Your task to perform on an android device: turn off airplane mode Image 0: 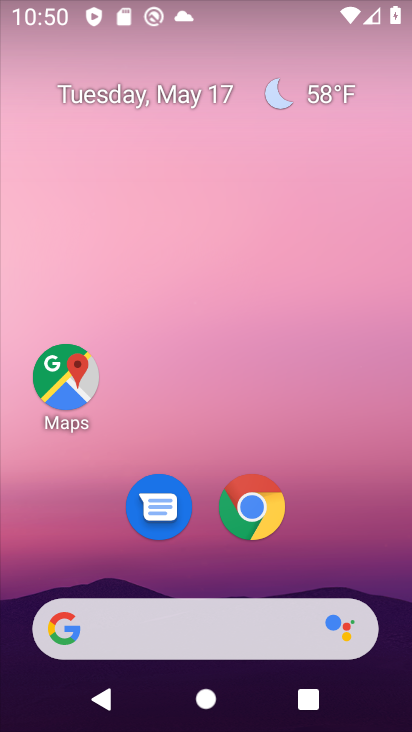
Step 0: drag from (312, 518) to (220, 162)
Your task to perform on an android device: turn off airplane mode Image 1: 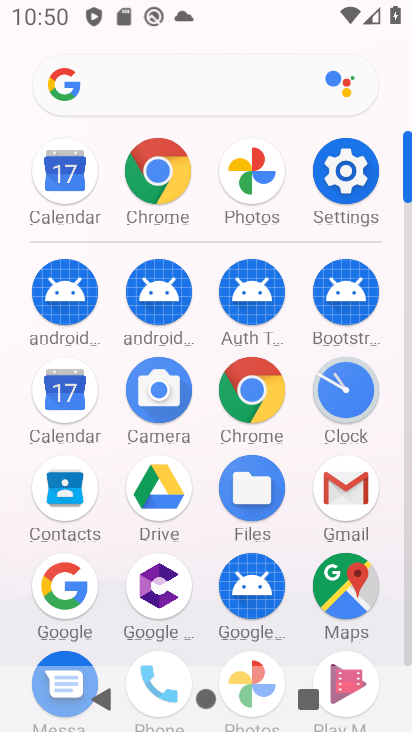
Step 1: click (338, 182)
Your task to perform on an android device: turn off airplane mode Image 2: 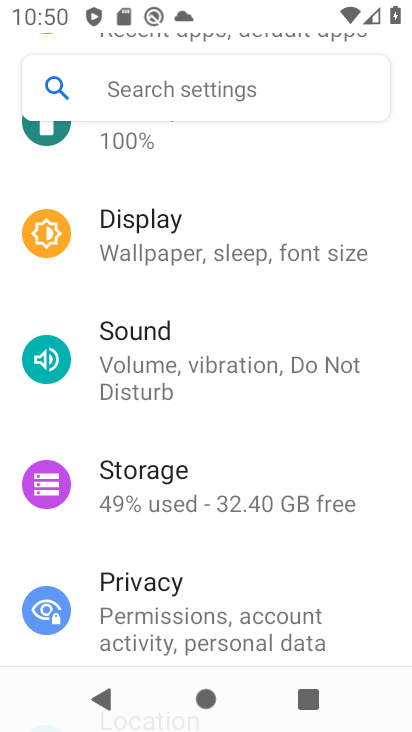
Step 2: drag from (193, 183) to (201, 562)
Your task to perform on an android device: turn off airplane mode Image 3: 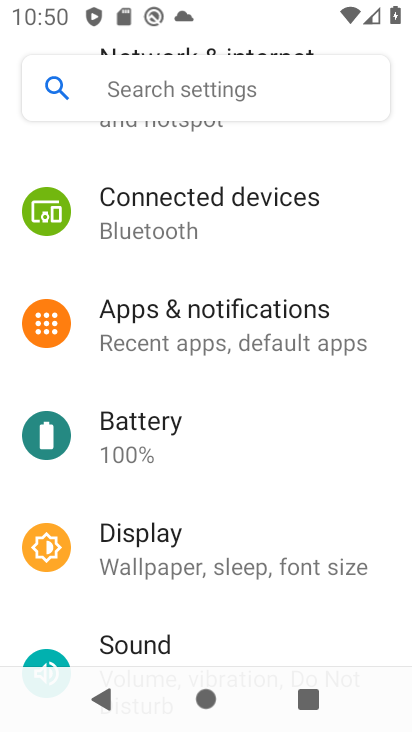
Step 3: drag from (159, 266) to (192, 600)
Your task to perform on an android device: turn off airplane mode Image 4: 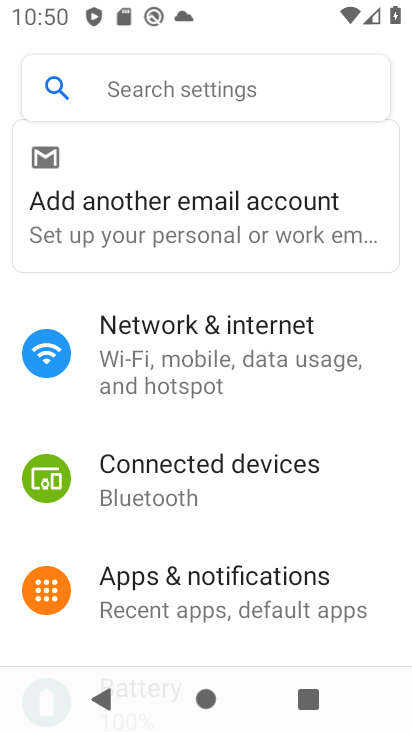
Step 4: click (174, 334)
Your task to perform on an android device: turn off airplane mode Image 5: 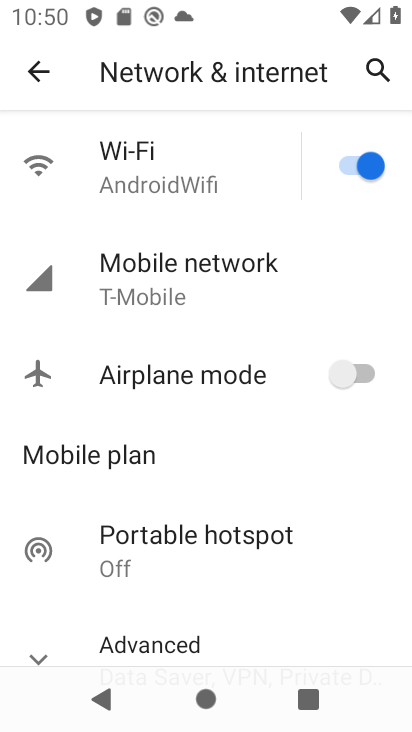
Step 5: task complete